Your task to perform on an android device: set the stopwatch Image 0: 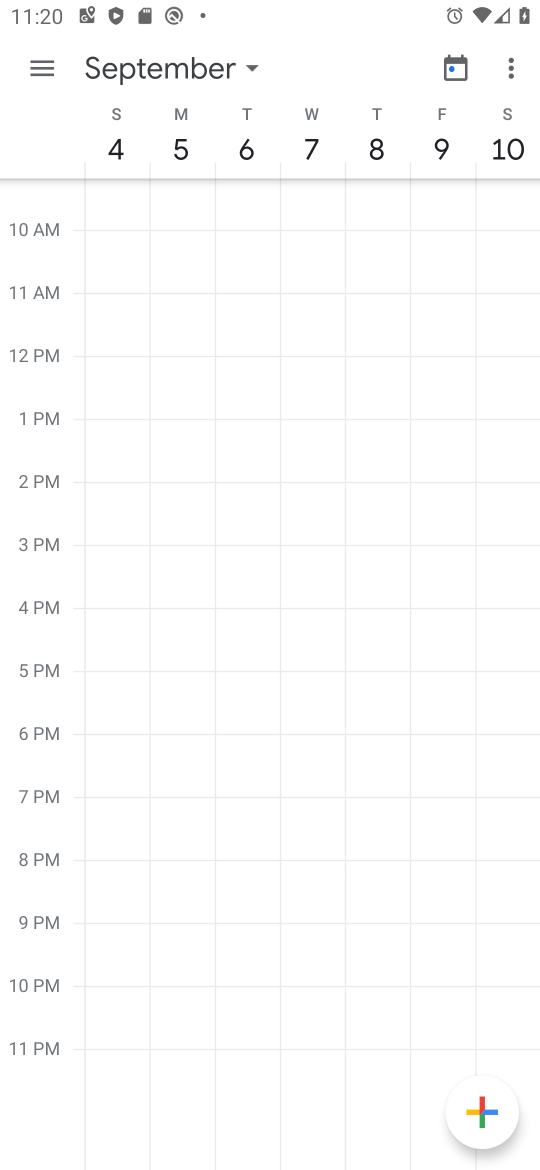
Step 0: press home button
Your task to perform on an android device: set the stopwatch Image 1: 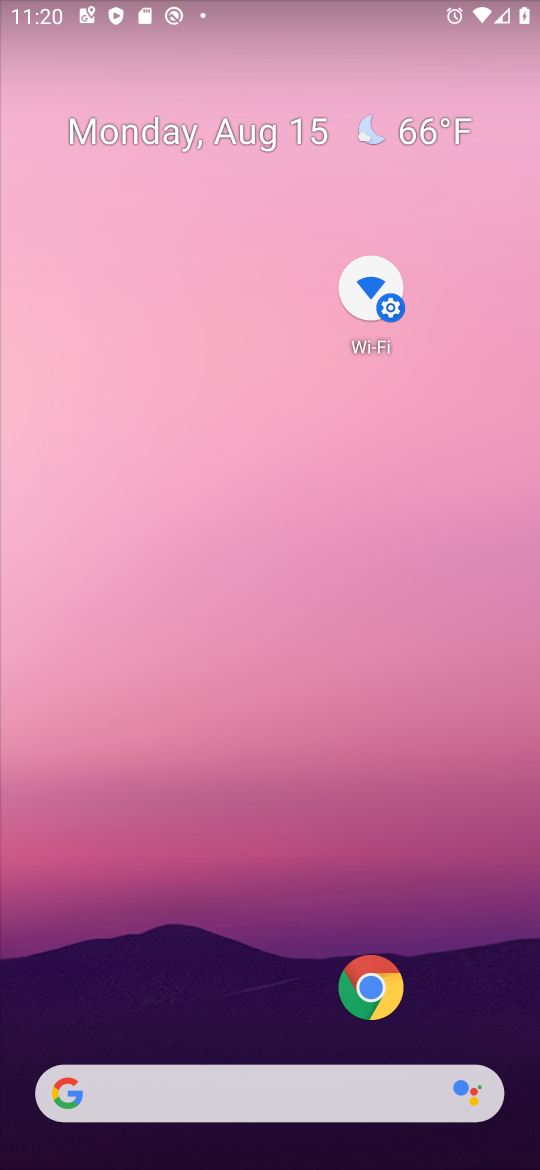
Step 1: drag from (328, 1064) to (135, 54)
Your task to perform on an android device: set the stopwatch Image 2: 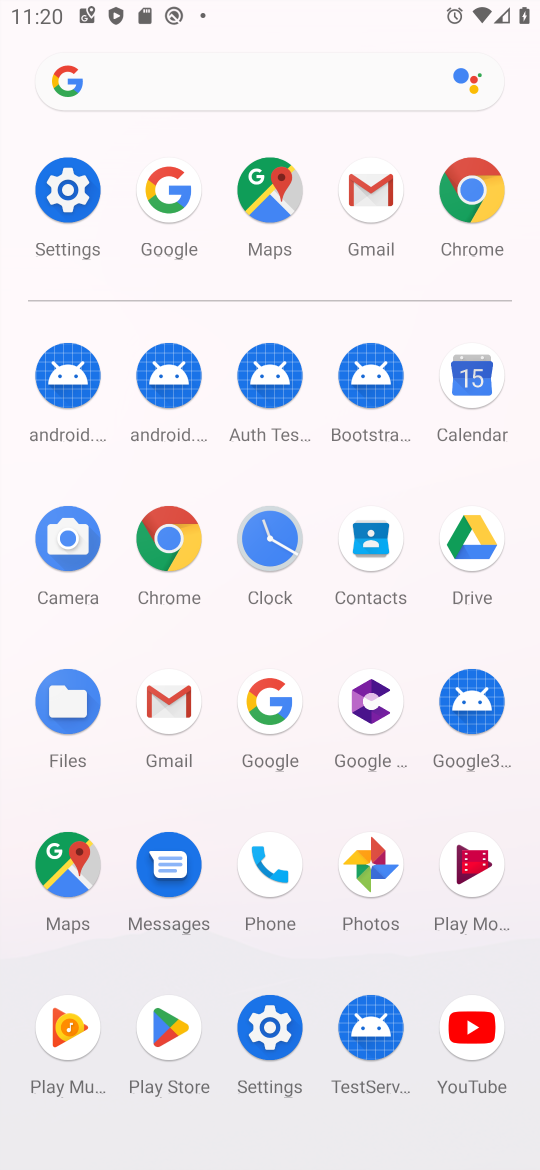
Step 2: click (264, 548)
Your task to perform on an android device: set the stopwatch Image 3: 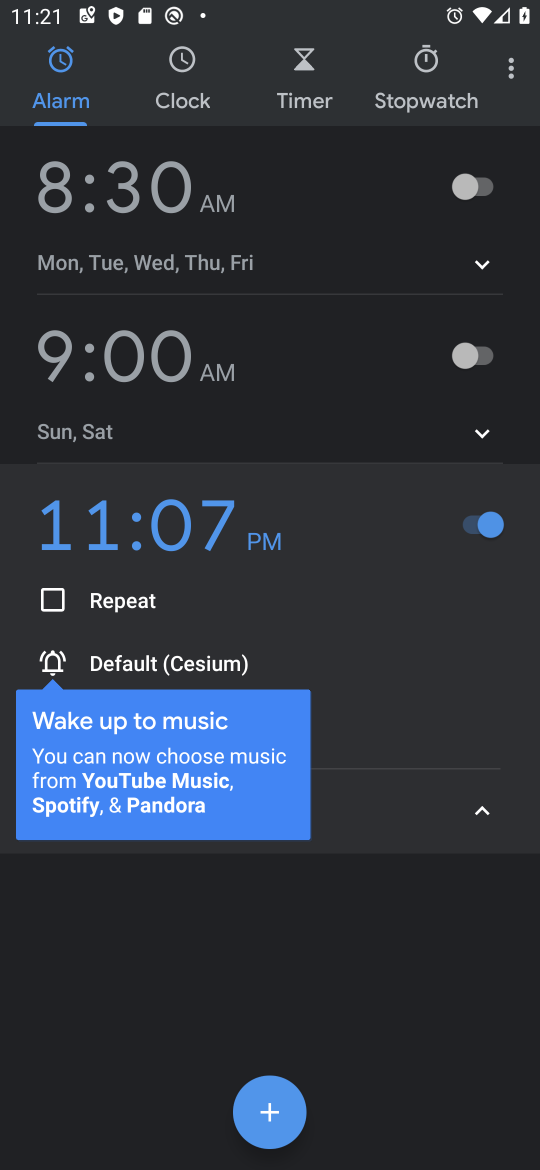
Step 3: click (416, 93)
Your task to perform on an android device: set the stopwatch Image 4: 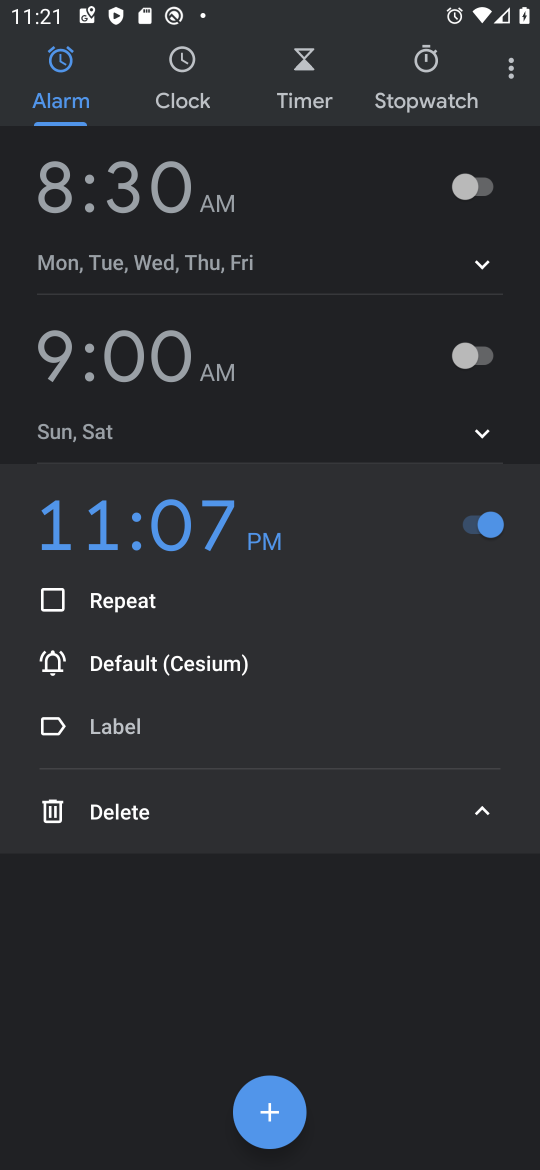
Step 4: click (281, 1134)
Your task to perform on an android device: set the stopwatch Image 5: 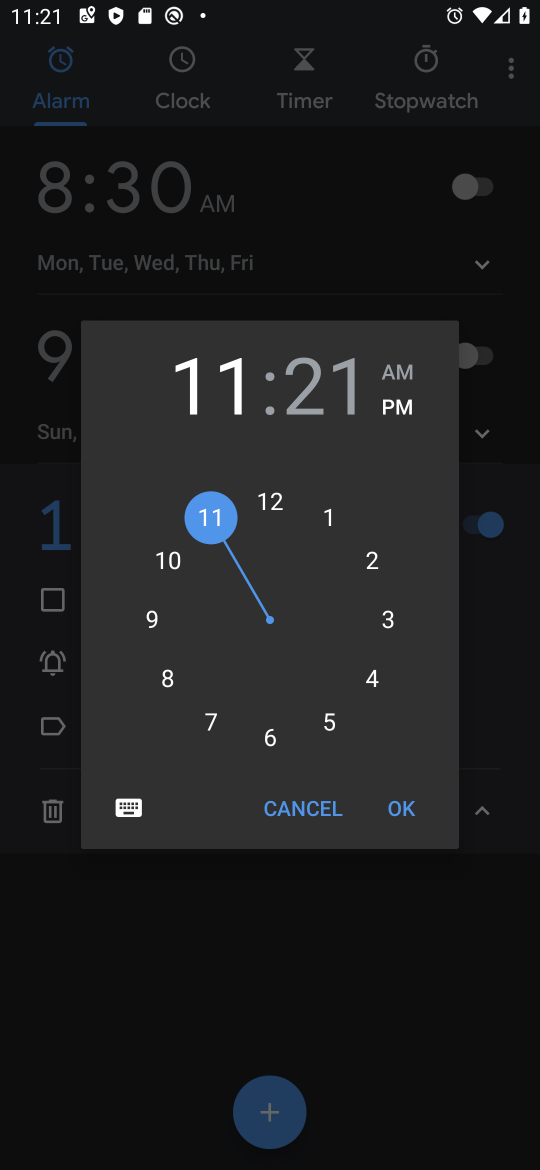
Step 5: click (296, 804)
Your task to perform on an android device: set the stopwatch Image 6: 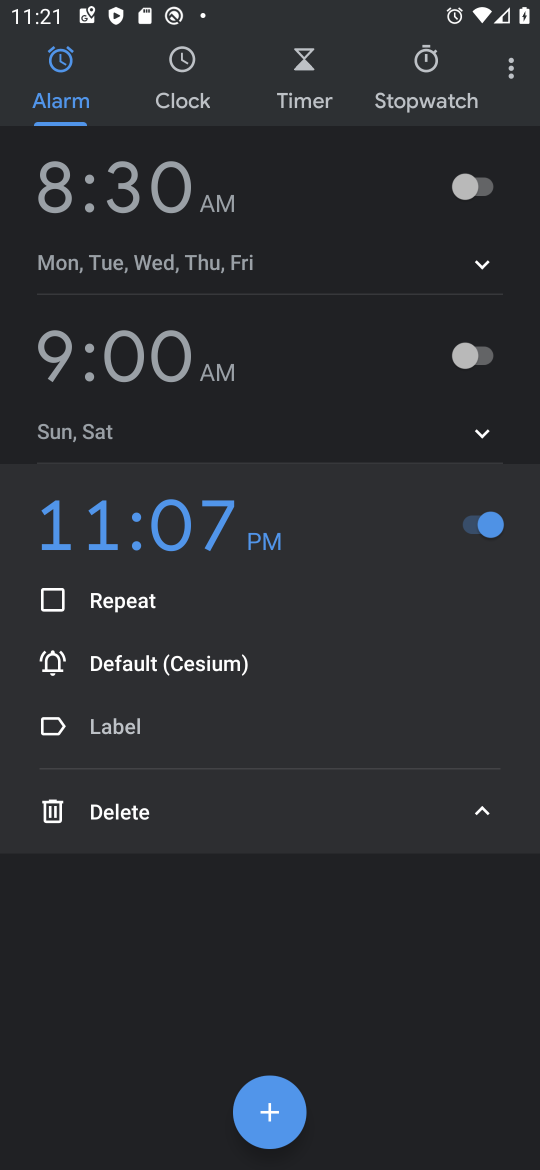
Step 6: click (426, 68)
Your task to perform on an android device: set the stopwatch Image 7: 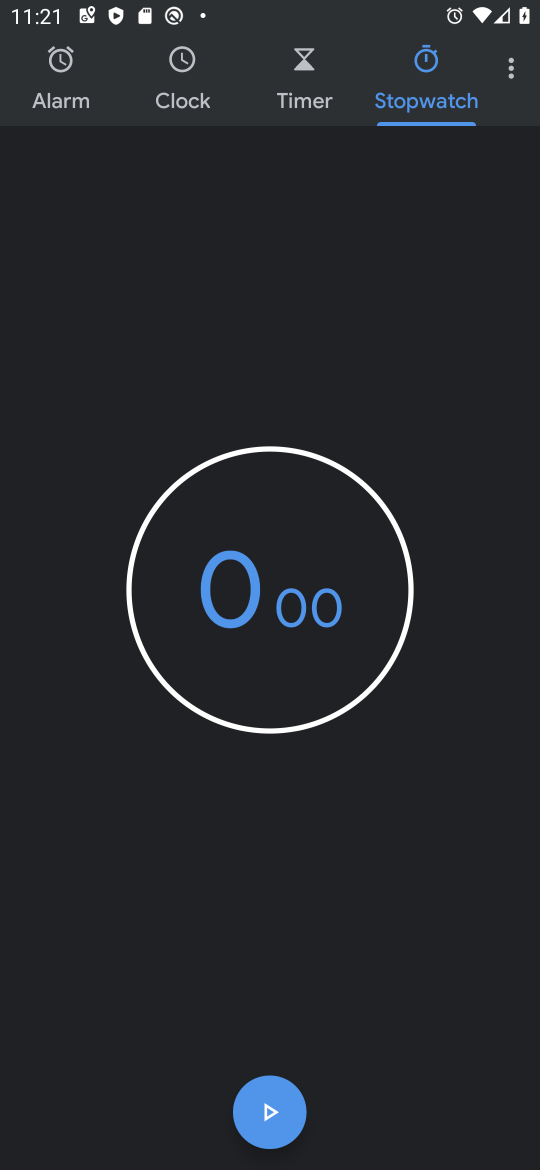
Step 7: click (283, 1098)
Your task to perform on an android device: set the stopwatch Image 8: 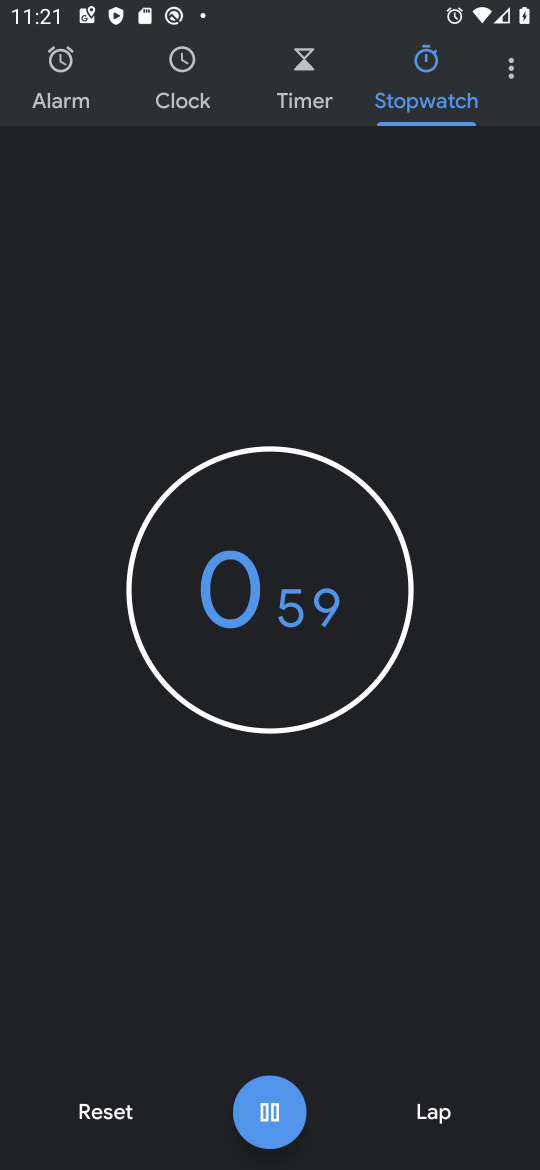
Step 8: click (283, 1098)
Your task to perform on an android device: set the stopwatch Image 9: 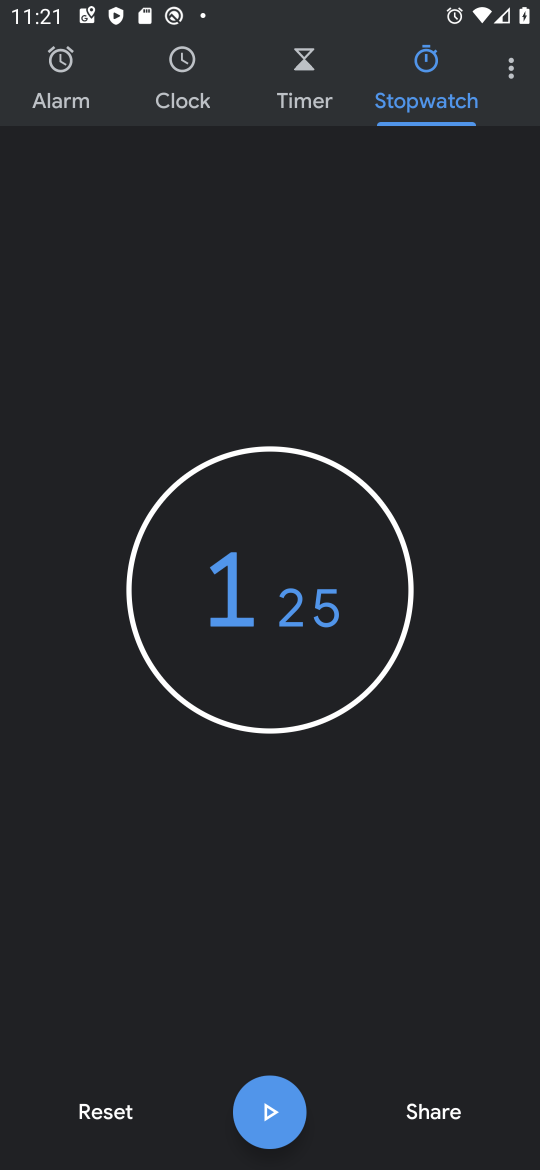
Step 9: task complete